Your task to perform on an android device: Open maps Image 0: 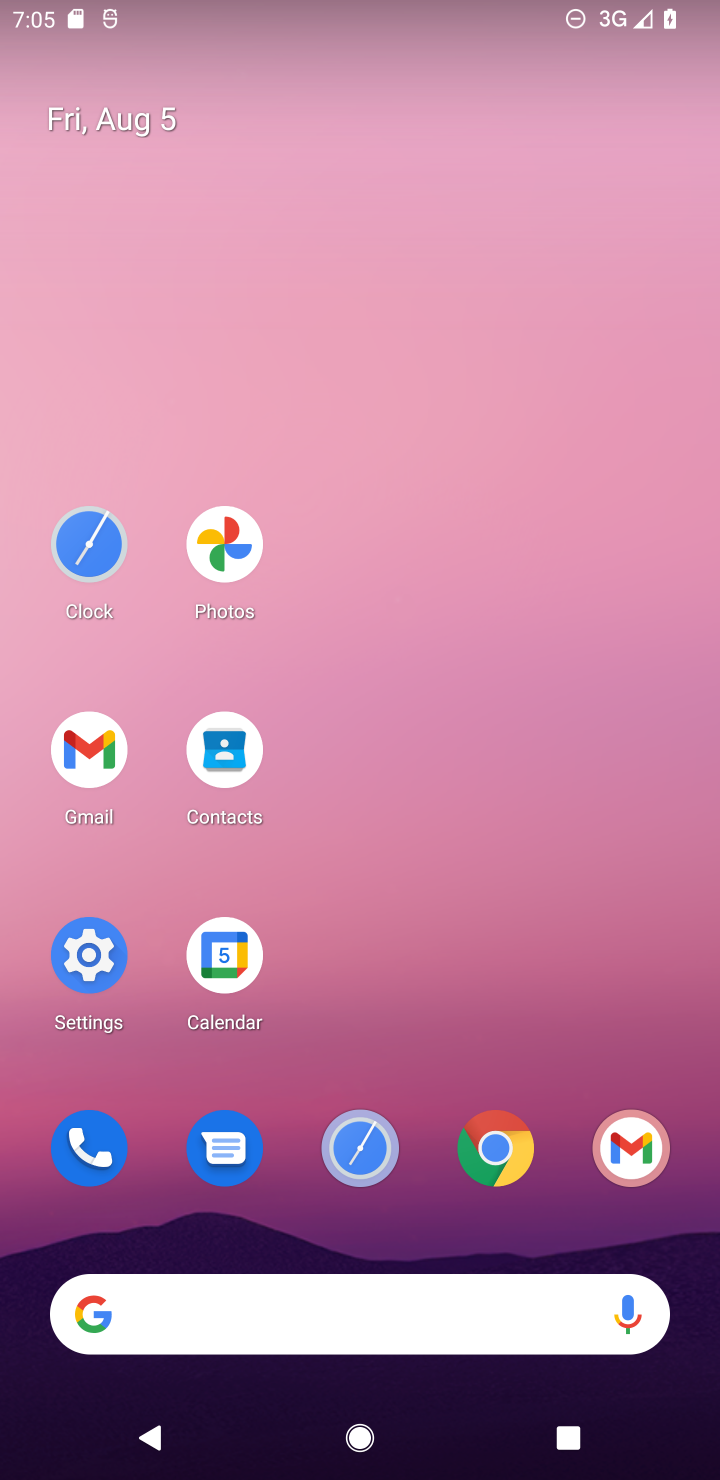
Step 0: drag from (412, 1020) to (394, 37)
Your task to perform on an android device: Open maps Image 1: 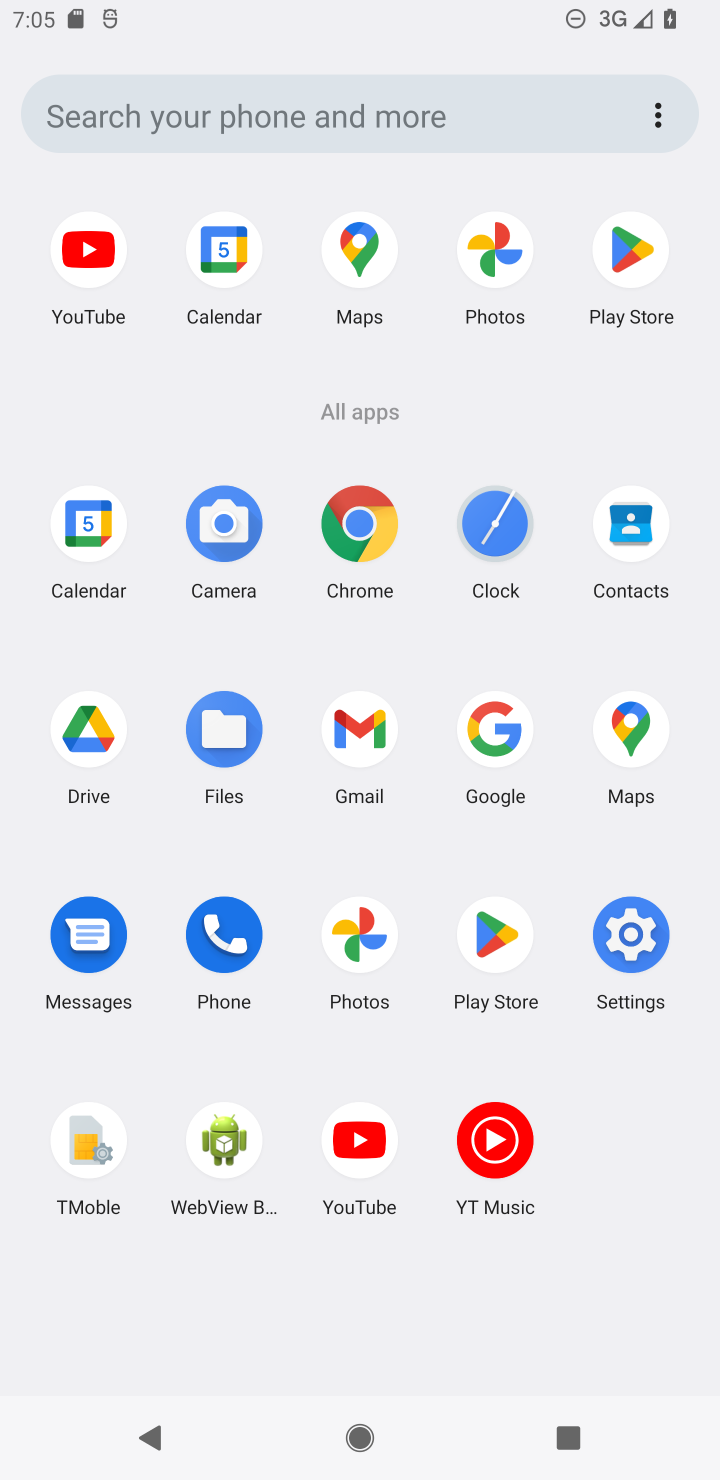
Step 1: click (361, 239)
Your task to perform on an android device: Open maps Image 2: 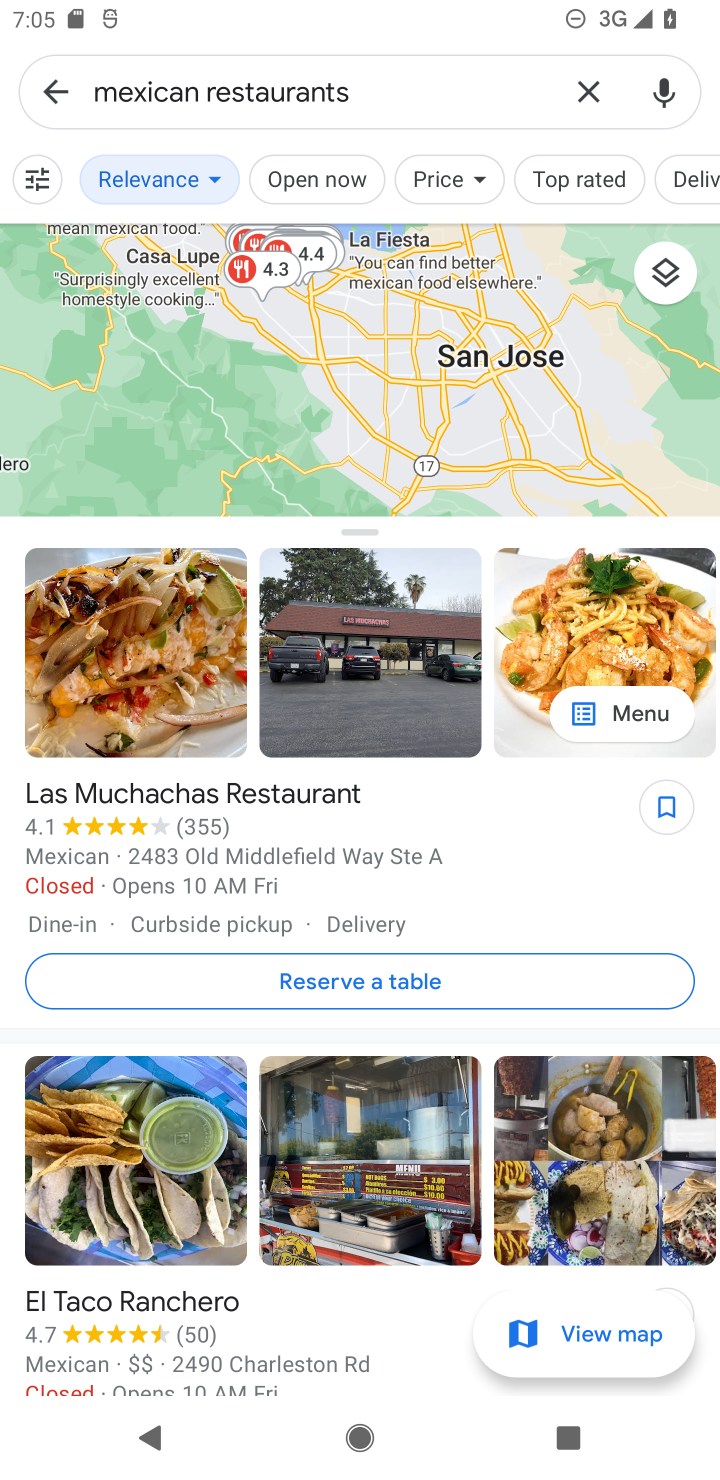
Step 2: click (587, 90)
Your task to perform on an android device: Open maps Image 3: 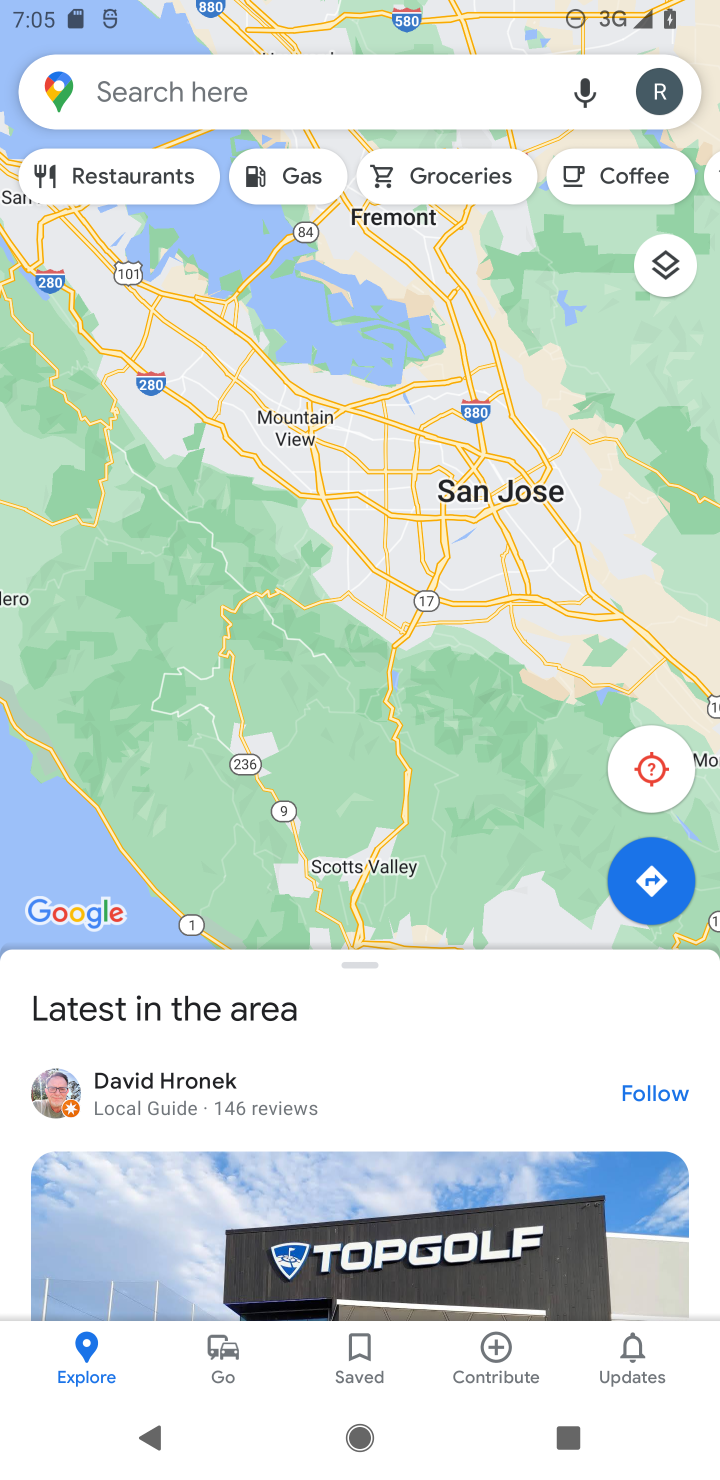
Step 3: task complete